Your task to perform on an android device: open chrome privacy settings Image 0: 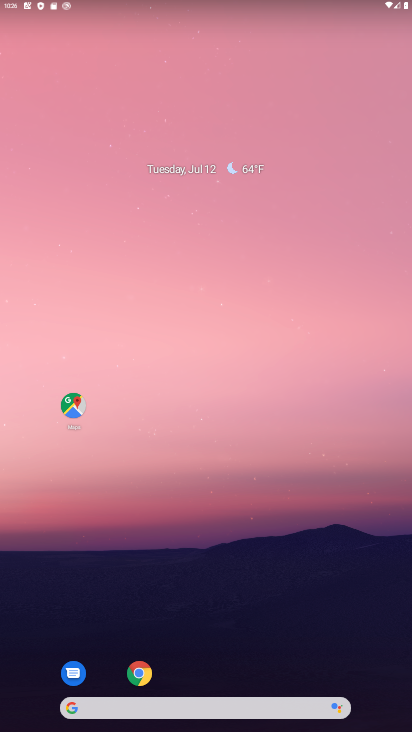
Step 0: drag from (301, 613) to (269, 126)
Your task to perform on an android device: open chrome privacy settings Image 1: 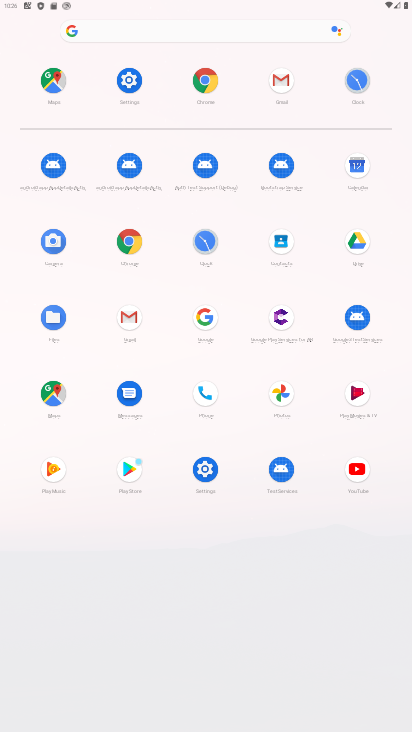
Step 1: click (126, 245)
Your task to perform on an android device: open chrome privacy settings Image 2: 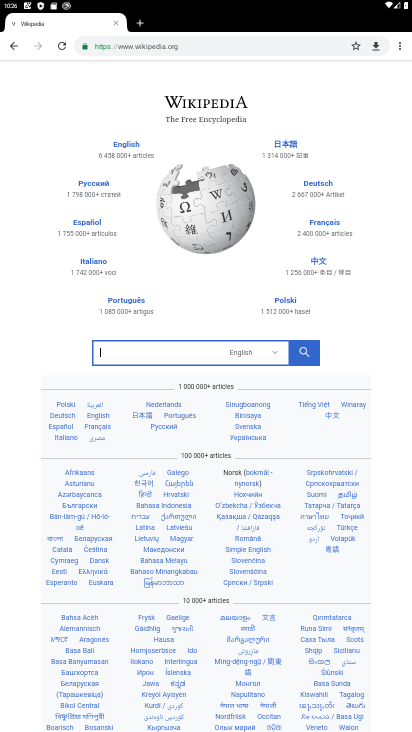
Step 2: drag from (401, 44) to (315, 331)
Your task to perform on an android device: open chrome privacy settings Image 3: 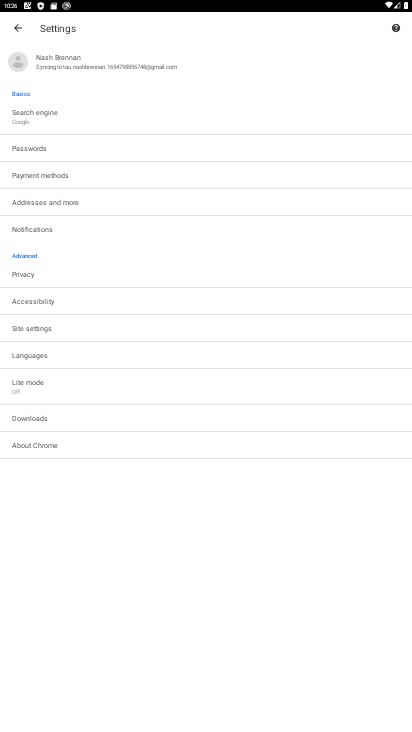
Step 3: click (17, 270)
Your task to perform on an android device: open chrome privacy settings Image 4: 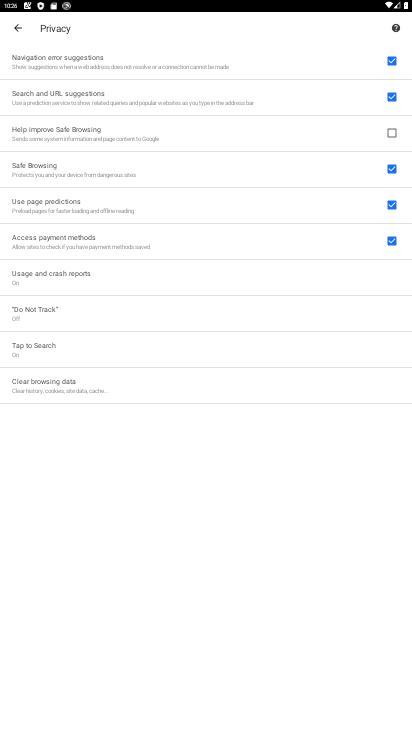
Step 4: task complete